Your task to perform on an android device: allow cookies in the chrome app Image 0: 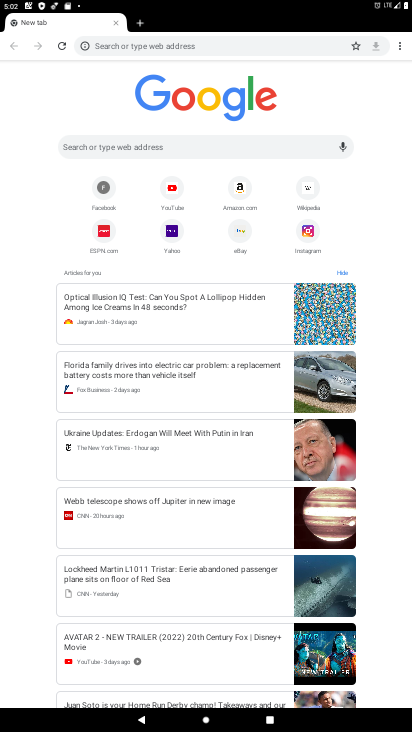
Step 0: click (410, 42)
Your task to perform on an android device: allow cookies in the chrome app Image 1: 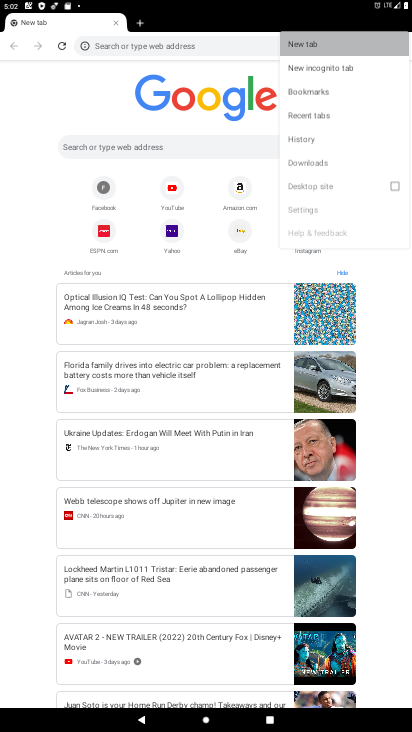
Step 1: click (395, 42)
Your task to perform on an android device: allow cookies in the chrome app Image 2: 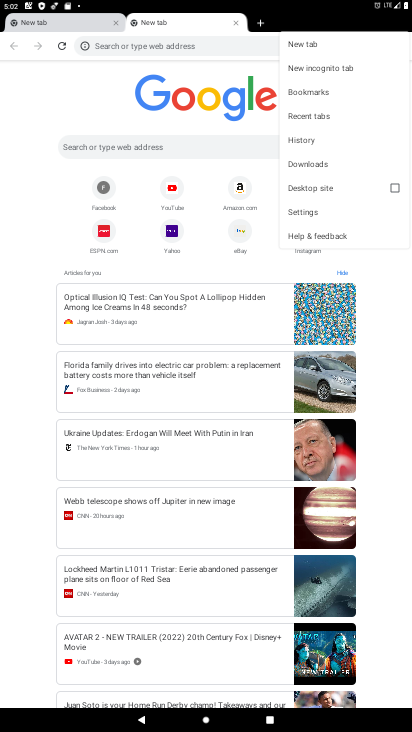
Step 2: click (317, 214)
Your task to perform on an android device: allow cookies in the chrome app Image 3: 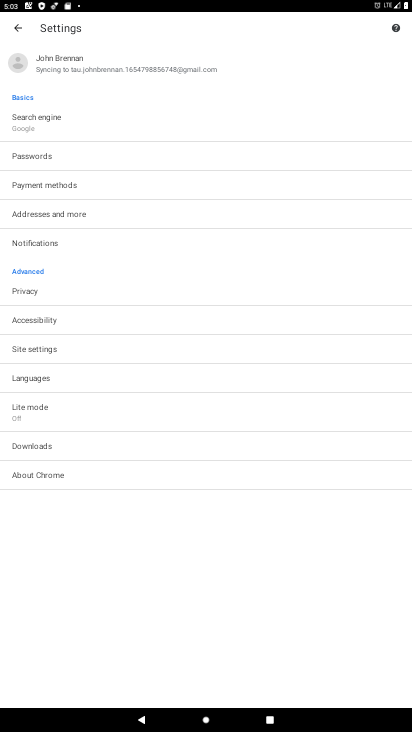
Step 3: click (41, 350)
Your task to perform on an android device: allow cookies in the chrome app Image 4: 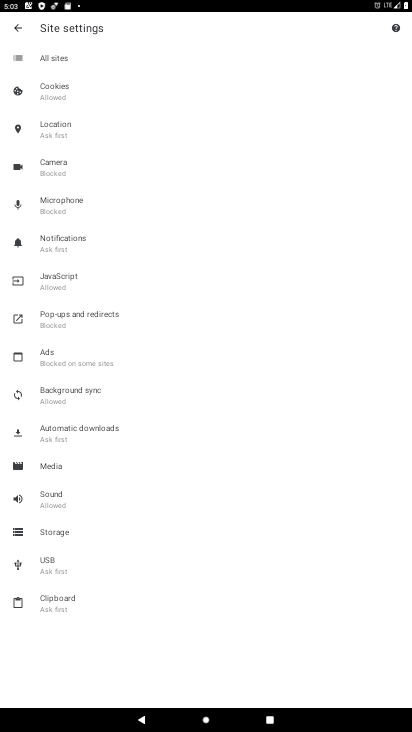
Step 4: click (56, 97)
Your task to perform on an android device: allow cookies in the chrome app Image 5: 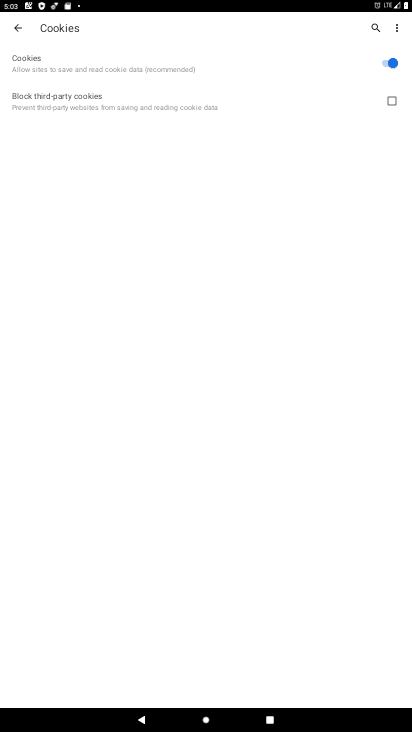
Step 5: task complete